Your task to perform on an android device: Open the Play Movies app and select the watchlist tab. Image 0: 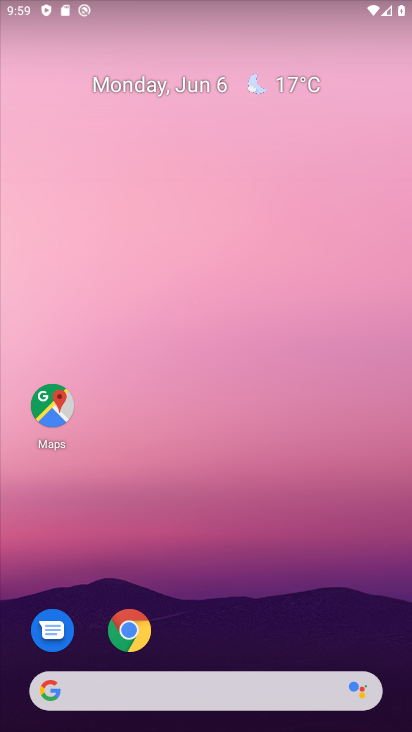
Step 0: drag from (261, 558) to (312, 11)
Your task to perform on an android device: Open the Play Movies app and select the watchlist tab. Image 1: 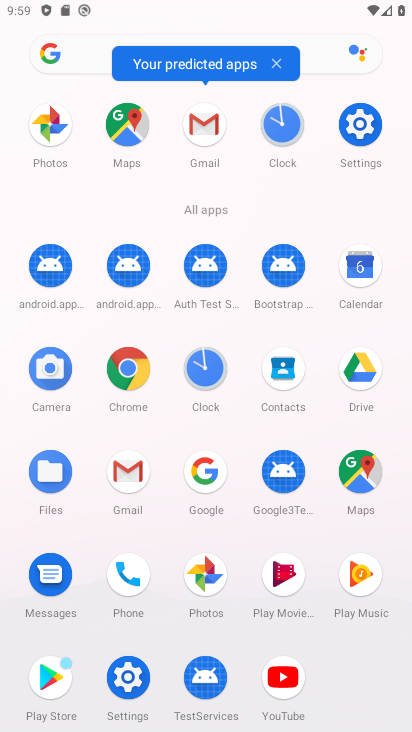
Step 1: click (288, 568)
Your task to perform on an android device: Open the Play Movies app and select the watchlist tab. Image 2: 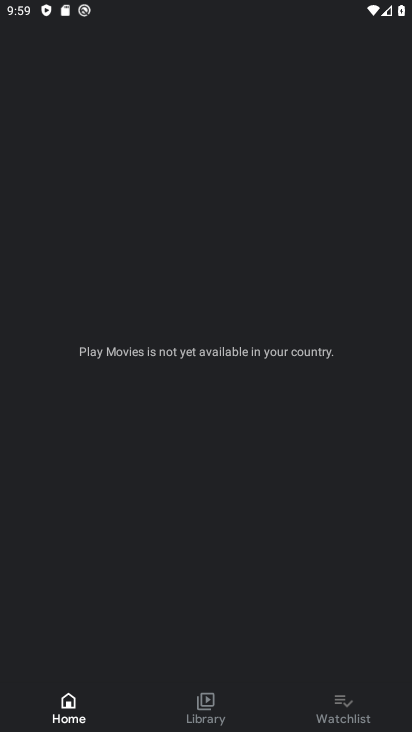
Step 2: click (345, 712)
Your task to perform on an android device: Open the Play Movies app and select the watchlist tab. Image 3: 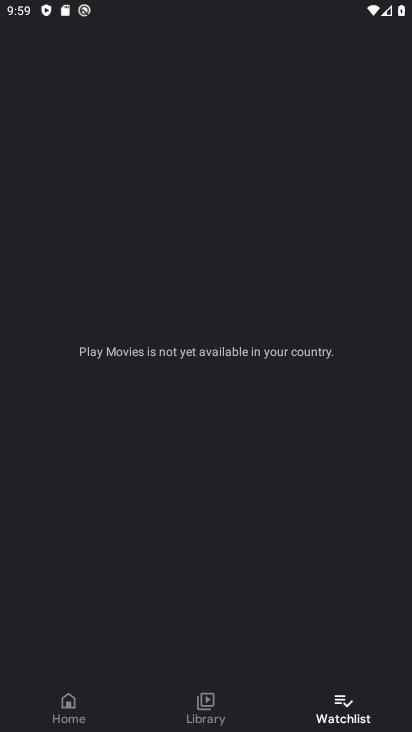
Step 3: task complete